Your task to perform on an android device: Open calendar and show me the first week of next month Image 0: 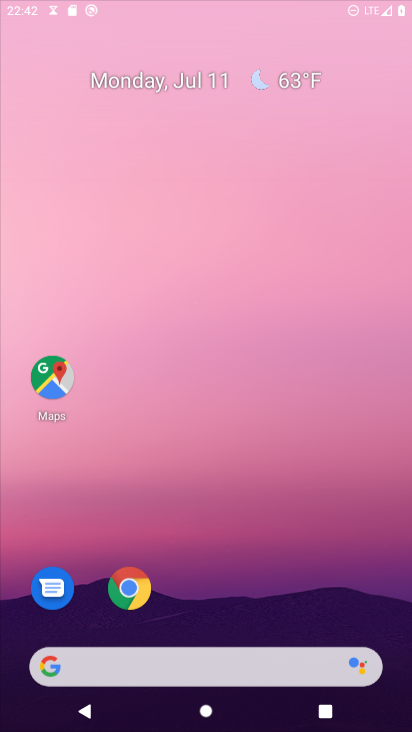
Step 0: press home button
Your task to perform on an android device: Open calendar and show me the first week of next month Image 1: 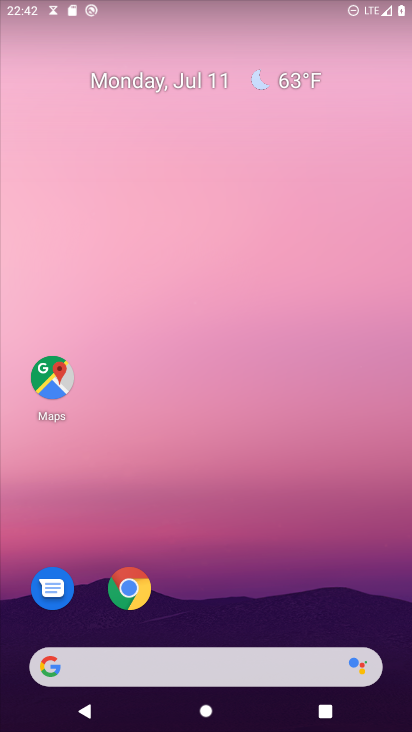
Step 1: drag from (252, 628) to (258, 61)
Your task to perform on an android device: Open calendar and show me the first week of next month Image 2: 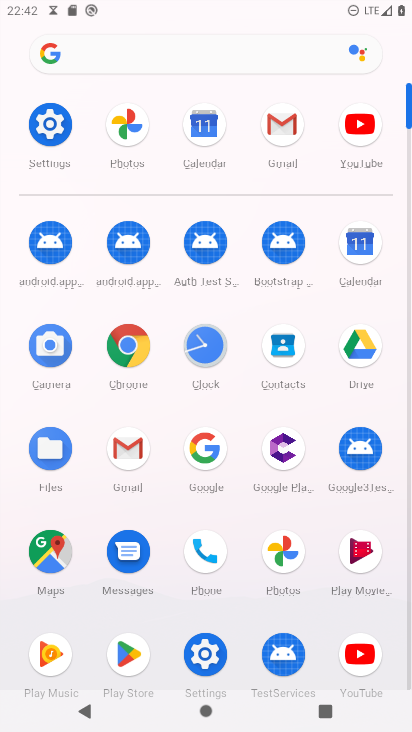
Step 2: click (363, 249)
Your task to perform on an android device: Open calendar and show me the first week of next month Image 3: 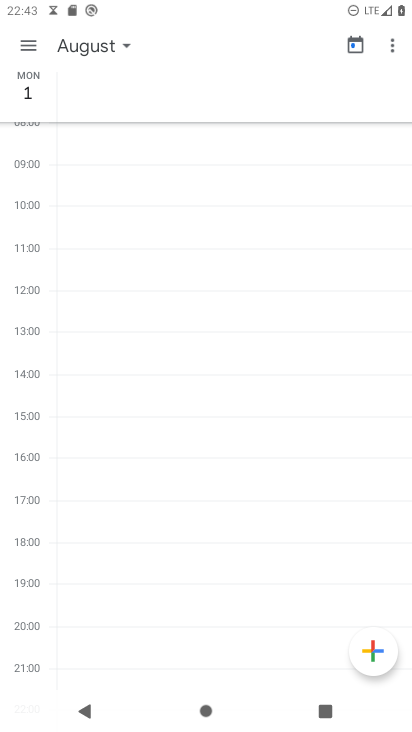
Step 3: click (129, 43)
Your task to perform on an android device: Open calendar and show me the first week of next month Image 4: 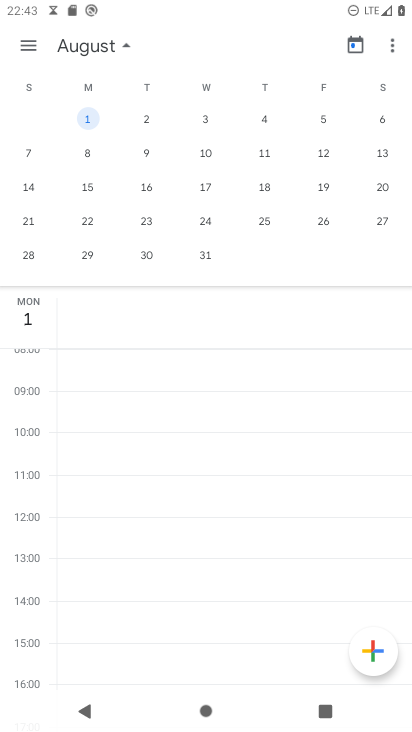
Step 4: click (91, 120)
Your task to perform on an android device: Open calendar and show me the first week of next month Image 5: 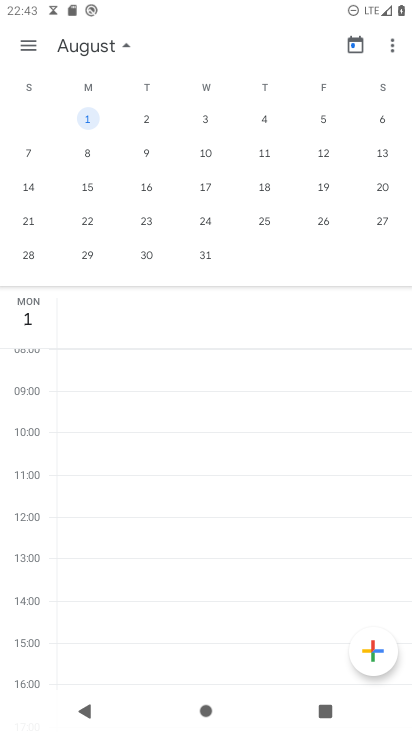
Step 5: click (145, 119)
Your task to perform on an android device: Open calendar and show me the first week of next month Image 6: 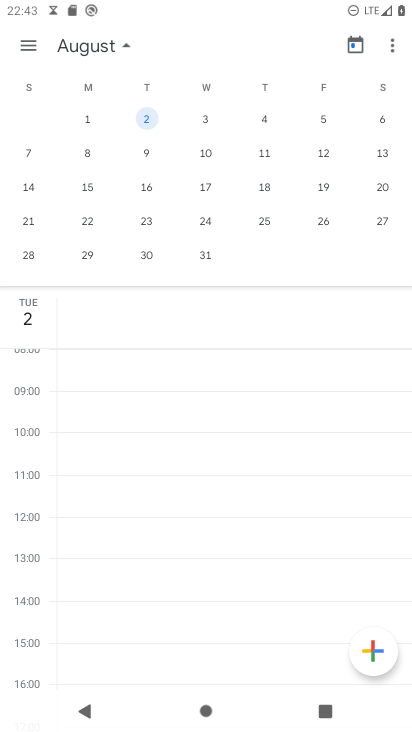
Step 6: click (209, 118)
Your task to perform on an android device: Open calendar and show me the first week of next month Image 7: 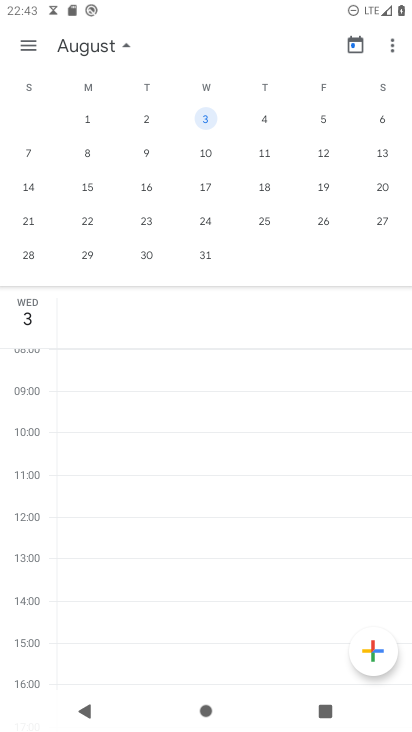
Step 7: click (261, 118)
Your task to perform on an android device: Open calendar and show me the first week of next month Image 8: 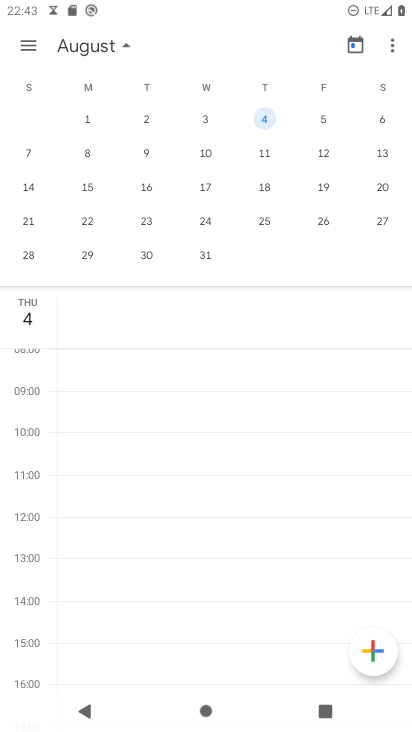
Step 8: click (326, 114)
Your task to perform on an android device: Open calendar and show me the first week of next month Image 9: 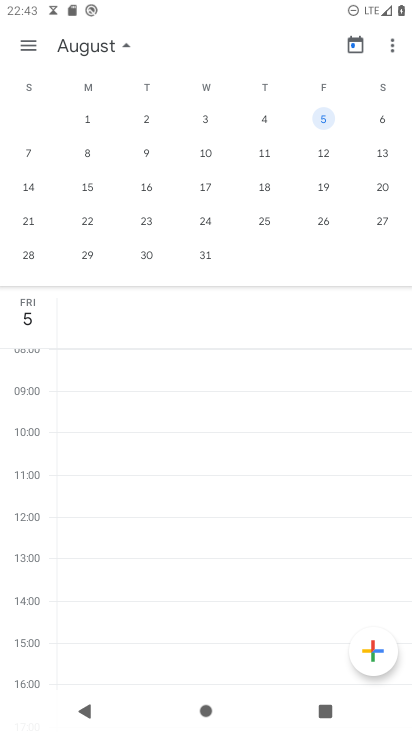
Step 9: click (384, 119)
Your task to perform on an android device: Open calendar and show me the first week of next month Image 10: 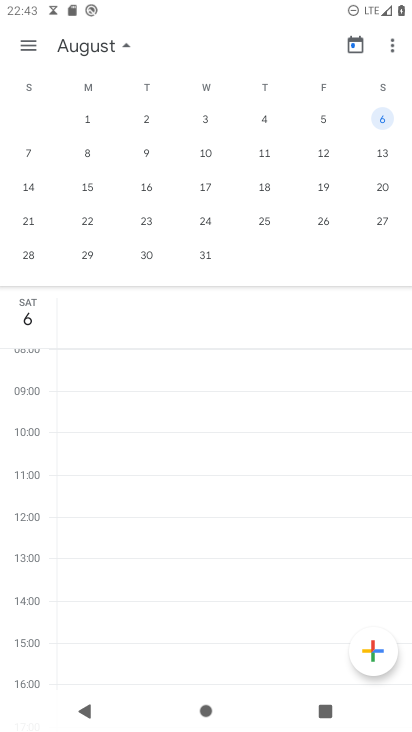
Step 10: click (27, 155)
Your task to perform on an android device: Open calendar and show me the first week of next month Image 11: 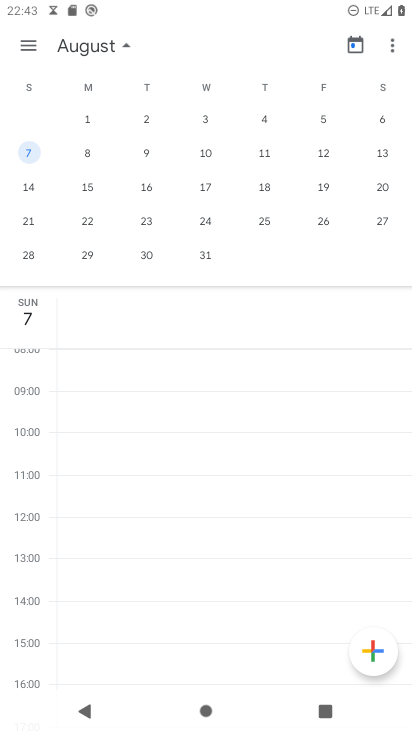
Step 11: task complete